Your task to perform on an android device: What's the weather? Image 0: 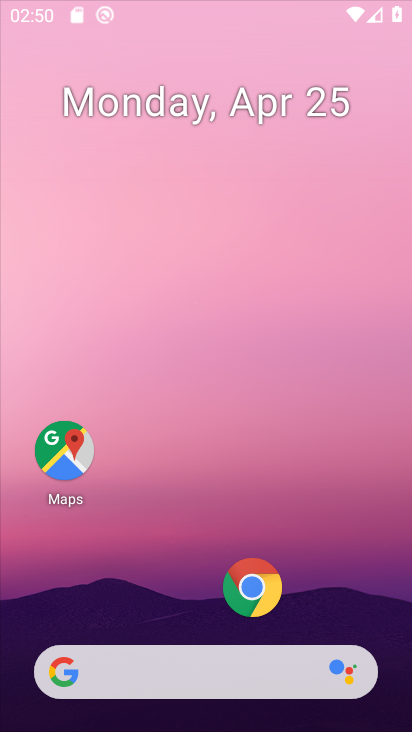
Step 0: click (143, 56)
Your task to perform on an android device: What's the weather? Image 1: 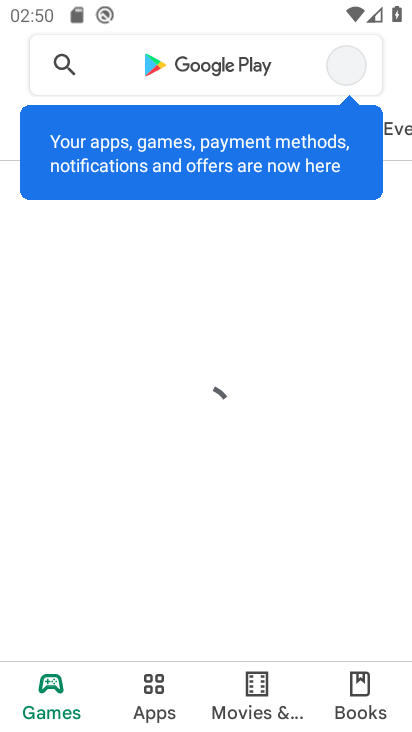
Step 1: press home button
Your task to perform on an android device: What's the weather? Image 2: 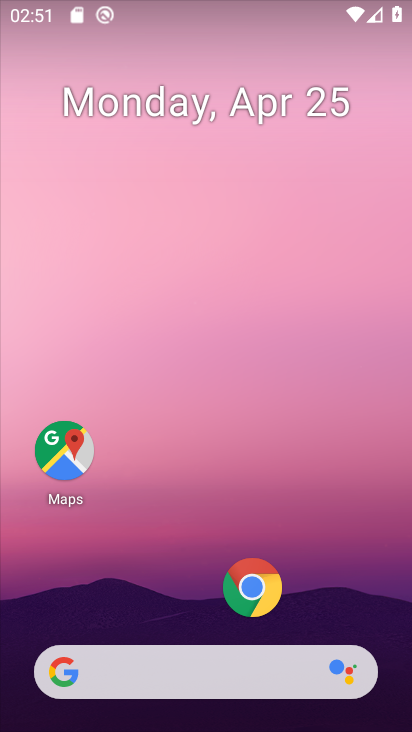
Step 2: drag from (211, 625) to (237, 53)
Your task to perform on an android device: What's the weather? Image 3: 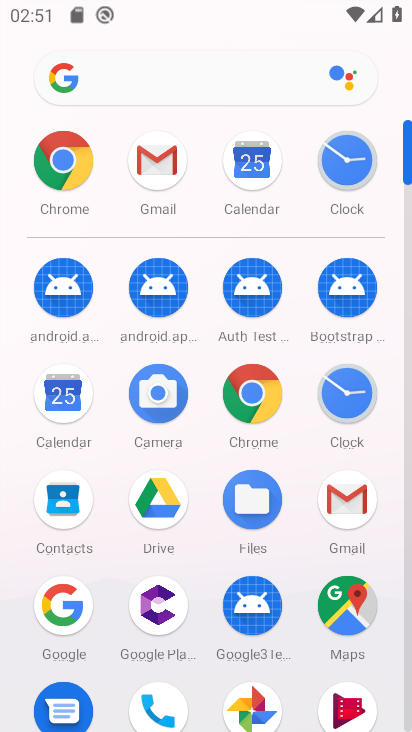
Step 3: press back button
Your task to perform on an android device: What's the weather? Image 4: 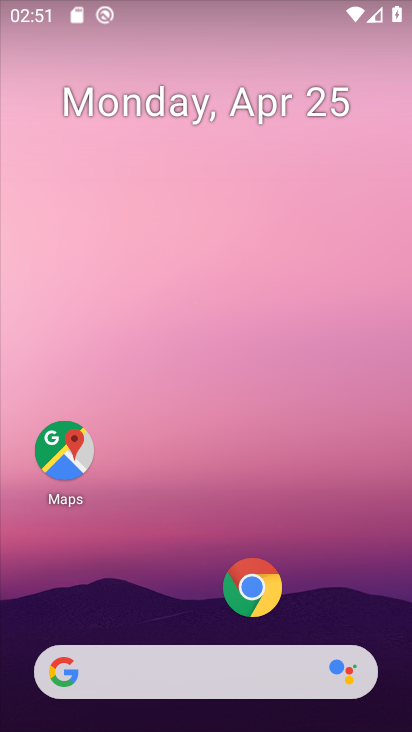
Step 4: drag from (8, 283) to (407, 291)
Your task to perform on an android device: What's the weather? Image 5: 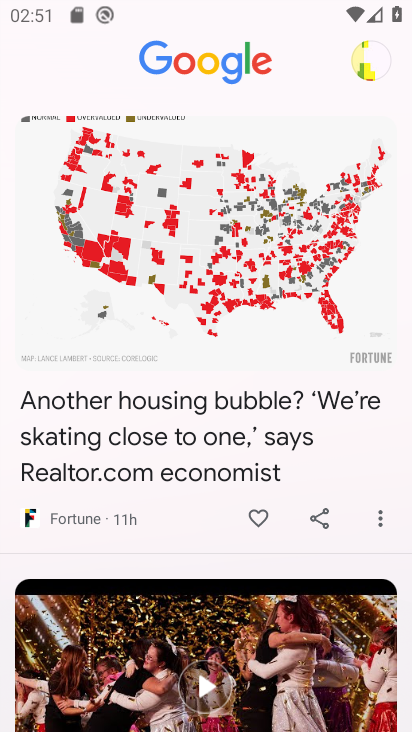
Step 5: drag from (128, 231) to (146, 633)
Your task to perform on an android device: What's the weather? Image 6: 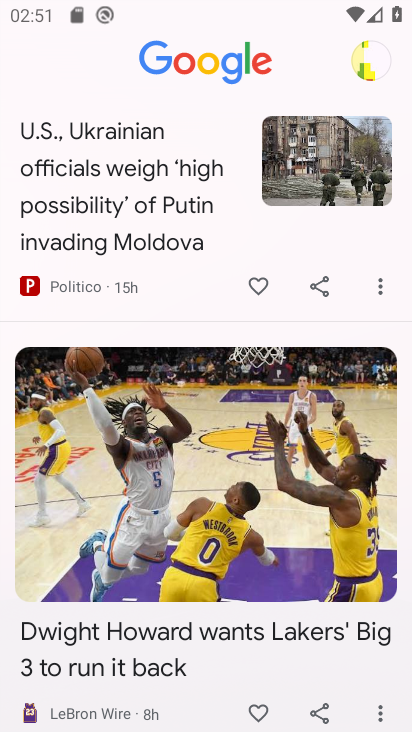
Step 6: press back button
Your task to perform on an android device: What's the weather? Image 7: 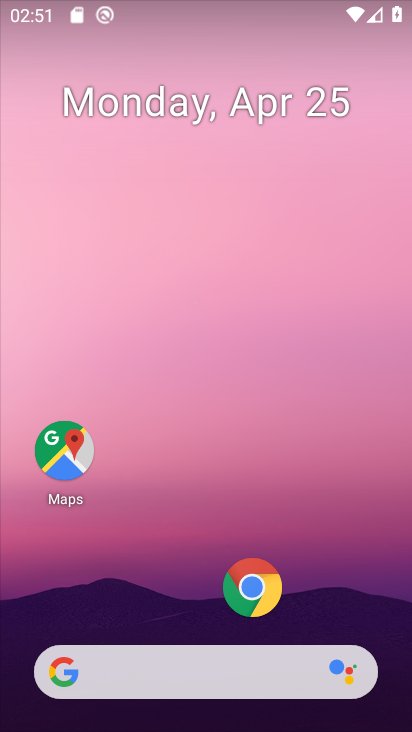
Step 7: click (189, 657)
Your task to perform on an android device: What's the weather? Image 8: 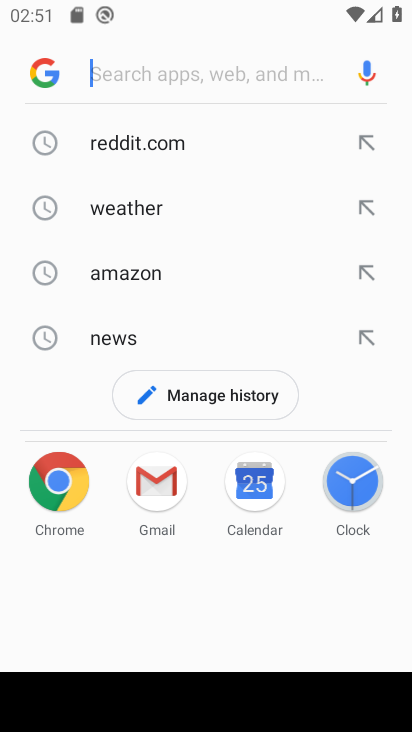
Step 8: click (149, 198)
Your task to perform on an android device: What's the weather? Image 9: 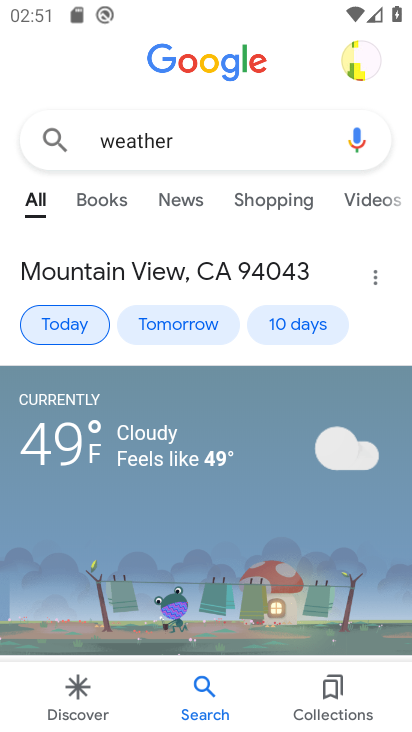
Step 9: task complete